Your task to perform on an android device: clear all cookies in the chrome app Image 0: 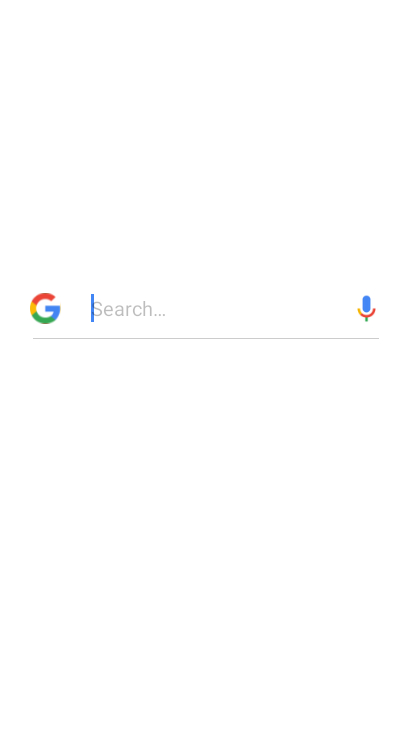
Step 0: drag from (190, 596) to (280, 140)
Your task to perform on an android device: clear all cookies in the chrome app Image 1: 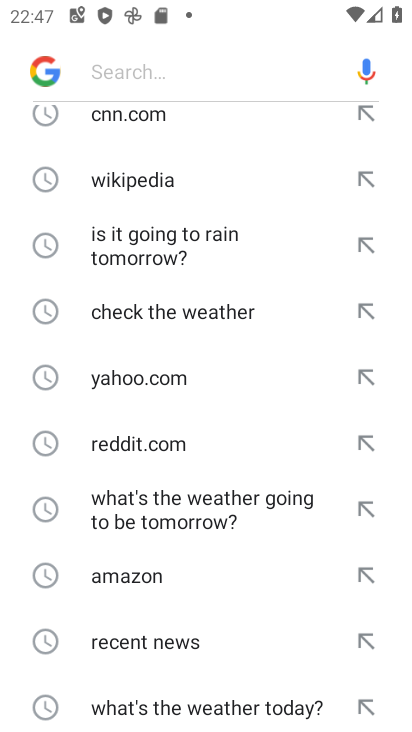
Step 1: drag from (169, 169) to (252, 570)
Your task to perform on an android device: clear all cookies in the chrome app Image 2: 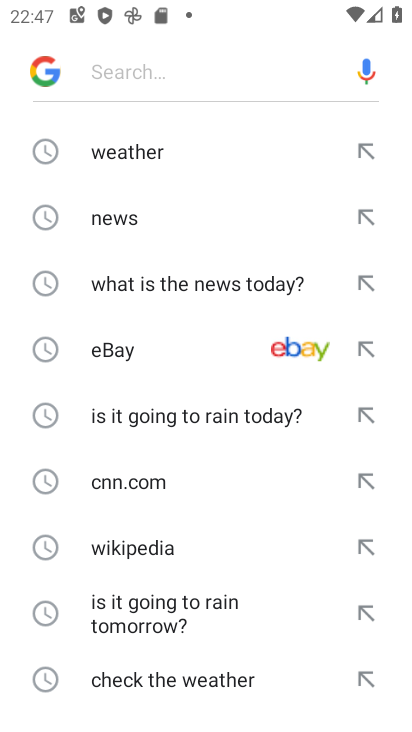
Step 2: drag from (180, 452) to (180, 174)
Your task to perform on an android device: clear all cookies in the chrome app Image 3: 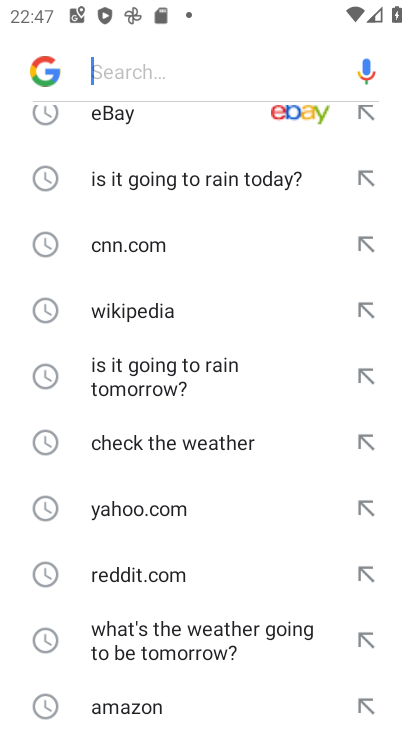
Step 3: drag from (146, 309) to (382, 603)
Your task to perform on an android device: clear all cookies in the chrome app Image 4: 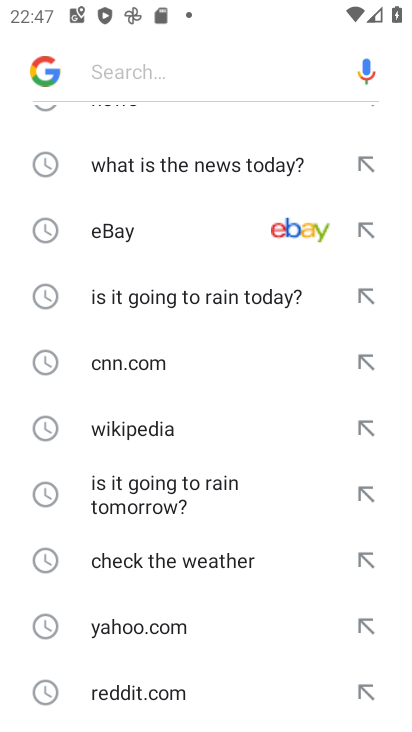
Step 4: drag from (205, 208) to (300, 719)
Your task to perform on an android device: clear all cookies in the chrome app Image 5: 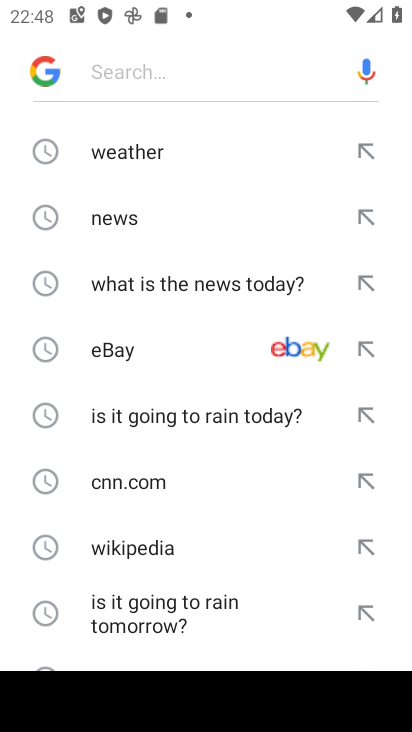
Step 5: press home button
Your task to perform on an android device: clear all cookies in the chrome app Image 6: 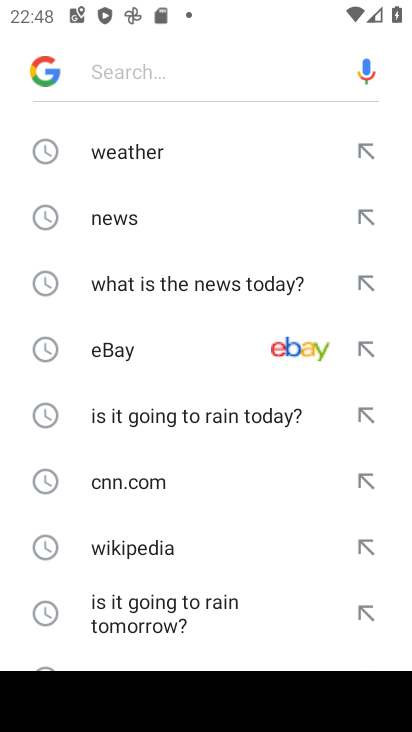
Step 6: press home button
Your task to perform on an android device: clear all cookies in the chrome app Image 7: 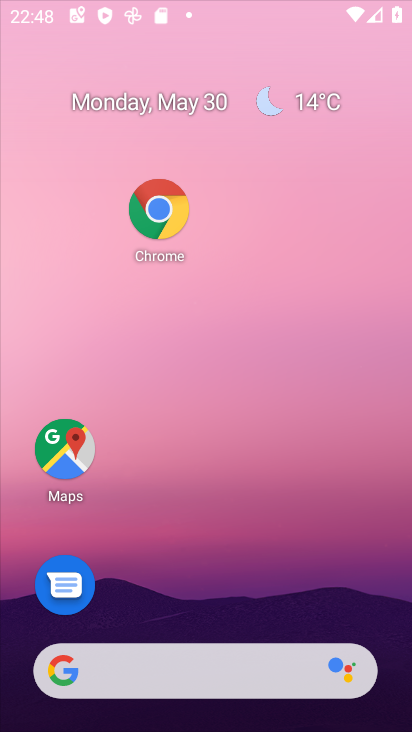
Step 7: drag from (185, 536) to (134, 12)
Your task to perform on an android device: clear all cookies in the chrome app Image 8: 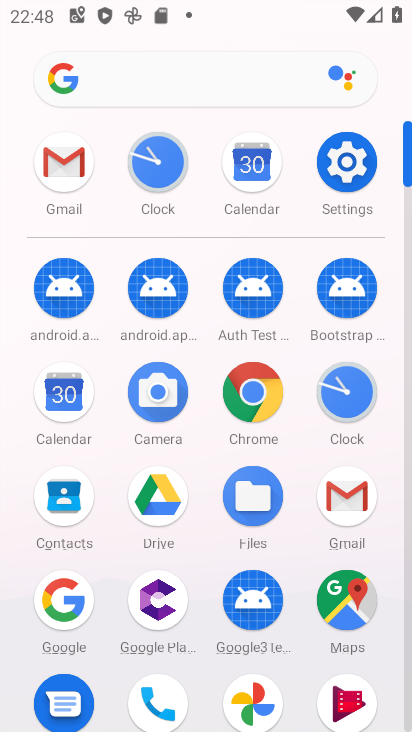
Step 8: click (250, 386)
Your task to perform on an android device: clear all cookies in the chrome app Image 9: 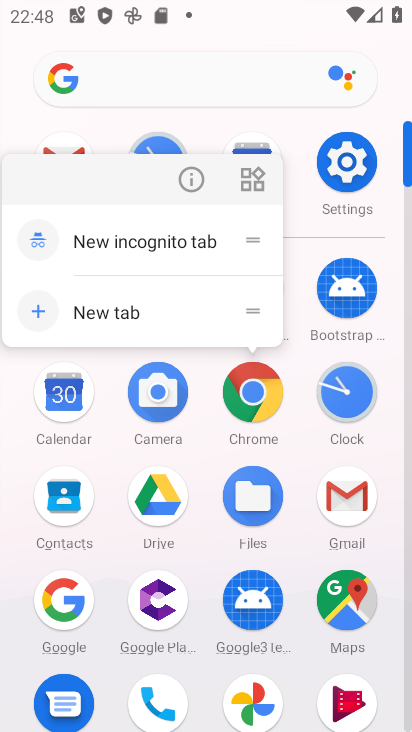
Step 9: click (197, 180)
Your task to perform on an android device: clear all cookies in the chrome app Image 10: 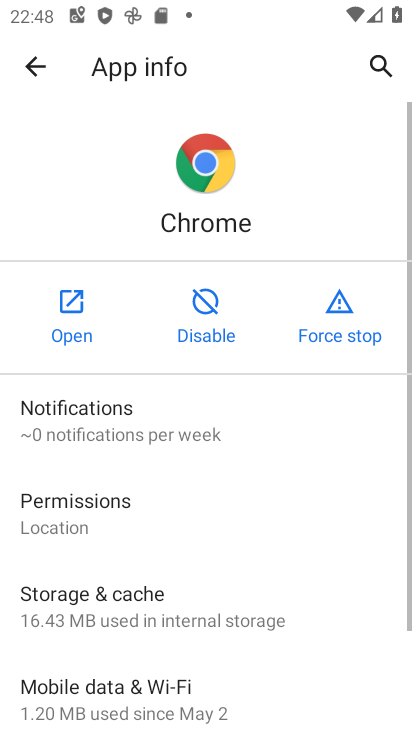
Step 10: click (58, 317)
Your task to perform on an android device: clear all cookies in the chrome app Image 11: 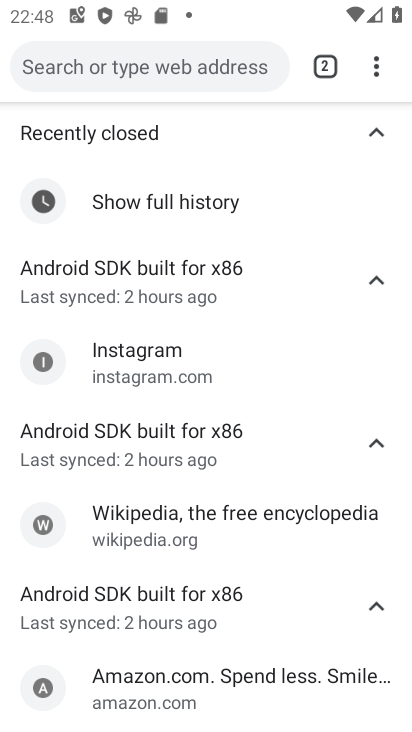
Step 11: click (382, 76)
Your task to perform on an android device: clear all cookies in the chrome app Image 12: 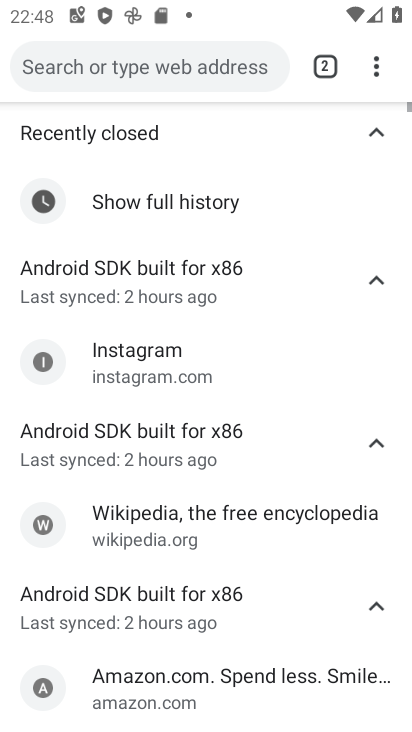
Step 12: drag from (382, 76) to (148, 382)
Your task to perform on an android device: clear all cookies in the chrome app Image 13: 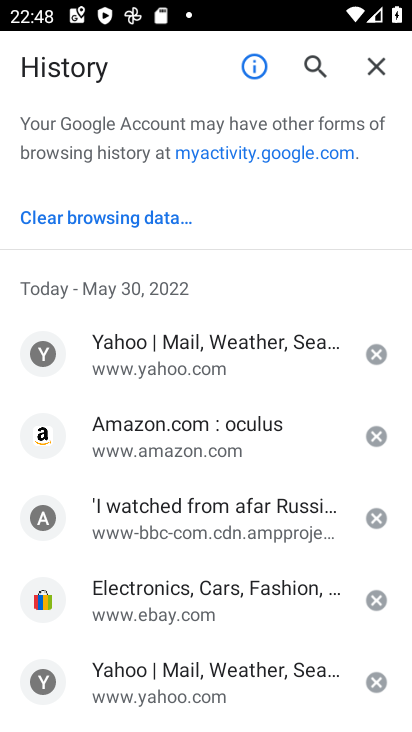
Step 13: click (71, 215)
Your task to perform on an android device: clear all cookies in the chrome app Image 14: 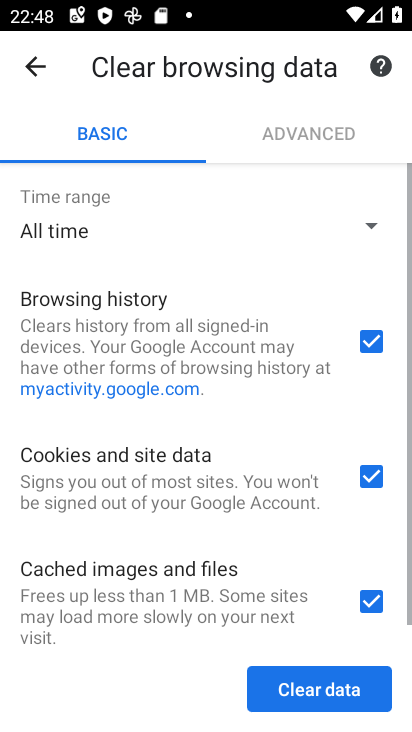
Step 14: click (331, 677)
Your task to perform on an android device: clear all cookies in the chrome app Image 15: 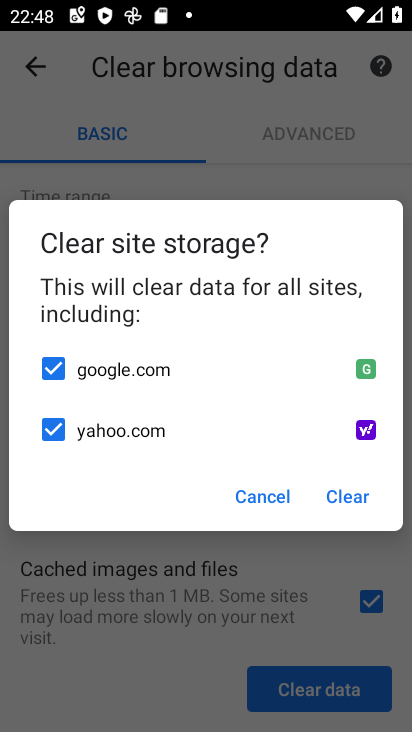
Step 15: click (340, 501)
Your task to perform on an android device: clear all cookies in the chrome app Image 16: 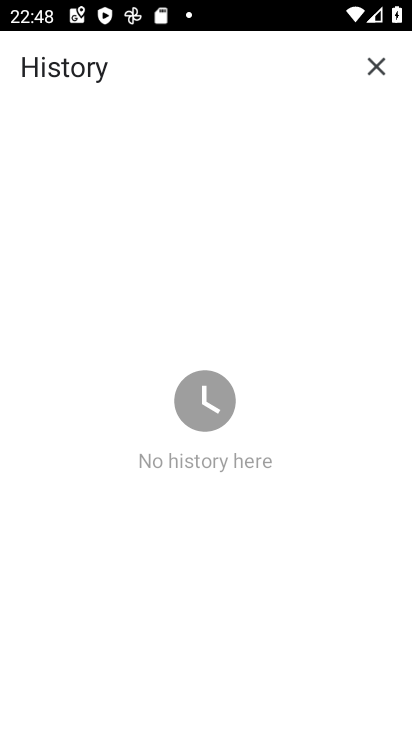
Step 16: task complete